Your task to perform on an android device: Go to calendar. Show me events next week Image 0: 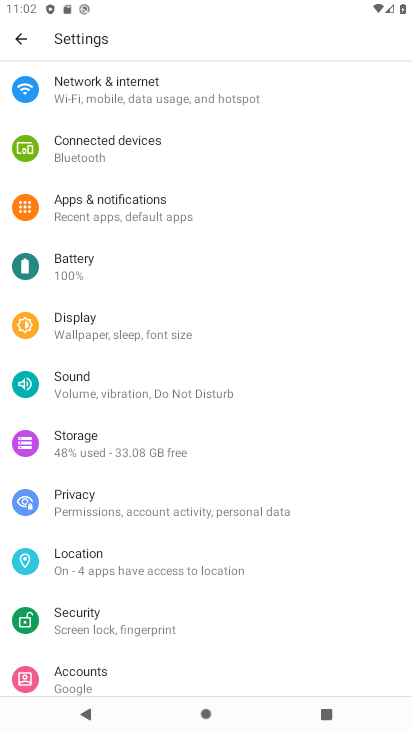
Step 0: press home button
Your task to perform on an android device: Go to calendar. Show me events next week Image 1: 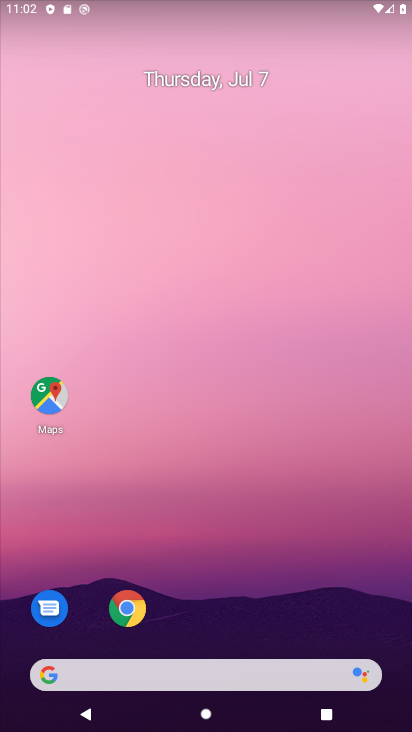
Step 1: drag from (277, 594) to (212, 26)
Your task to perform on an android device: Go to calendar. Show me events next week Image 2: 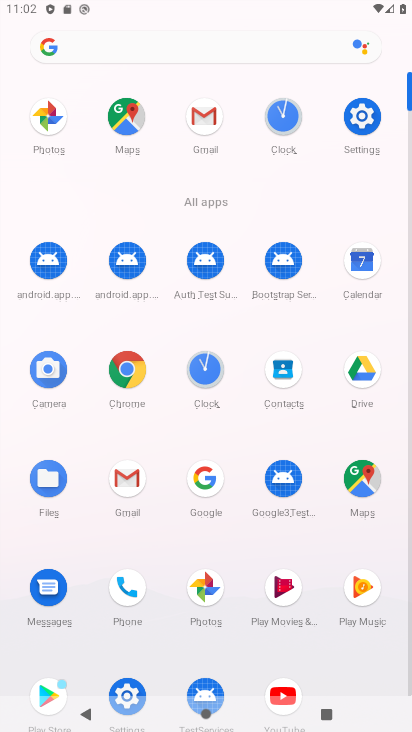
Step 2: click (352, 283)
Your task to perform on an android device: Go to calendar. Show me events next week Image 3: 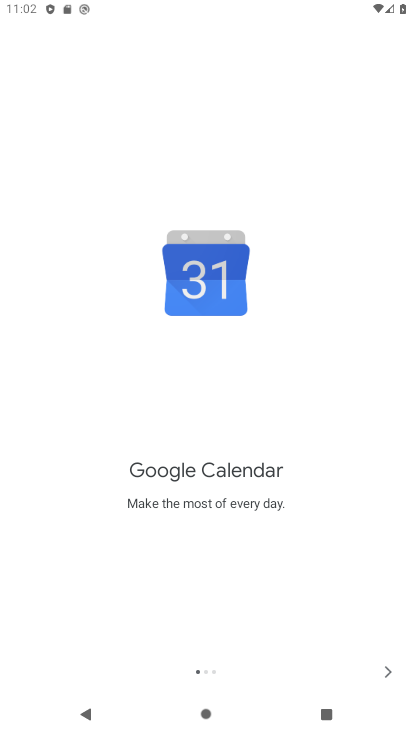
Step 3: click (401, 675)
Your task to perform on an android device: Go to calendar. Show me events next week Image 4: 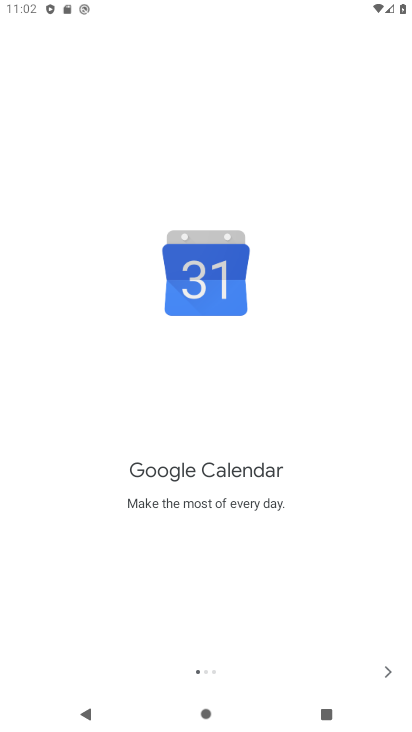
Step 4: click (401, 675)
Your task to perform on an android device: Go to calendar. Show me events next week Image 5: 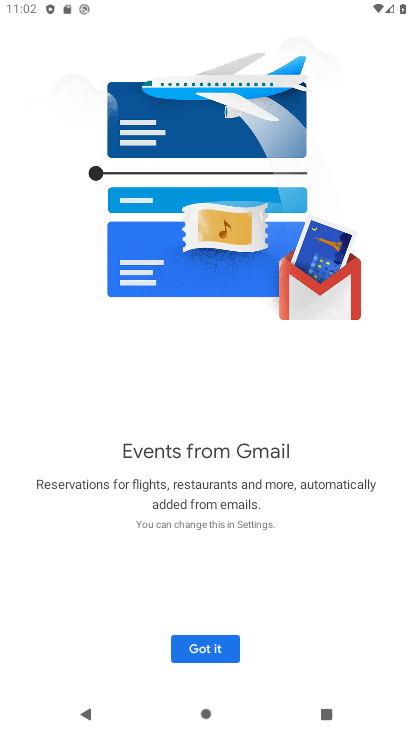
Step 5: click (401, 675)
Your task to perform on an android device: Go to calendar. Show me events next week Image 6: 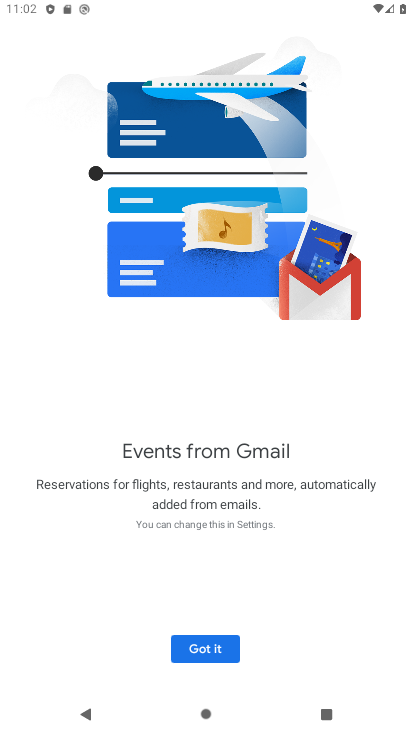
Step 6: click (183, 648)
Your task to perform on an android device: Go to calendar. Show me events next week Image 7: 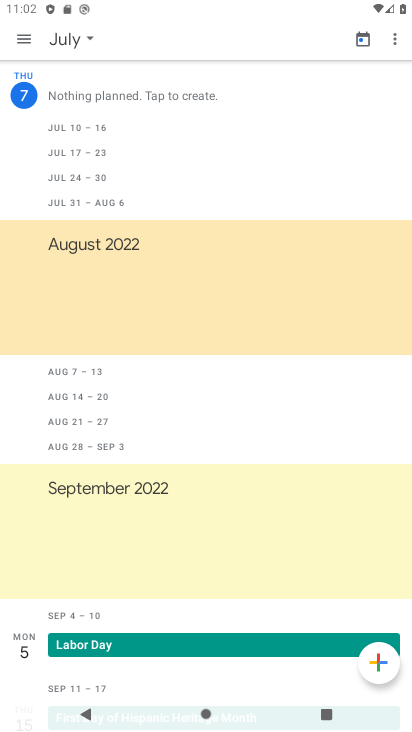
Step 7: click (15, 39)
Your task to perform on an android device: Go to calendar. Show me events next week Image 8: 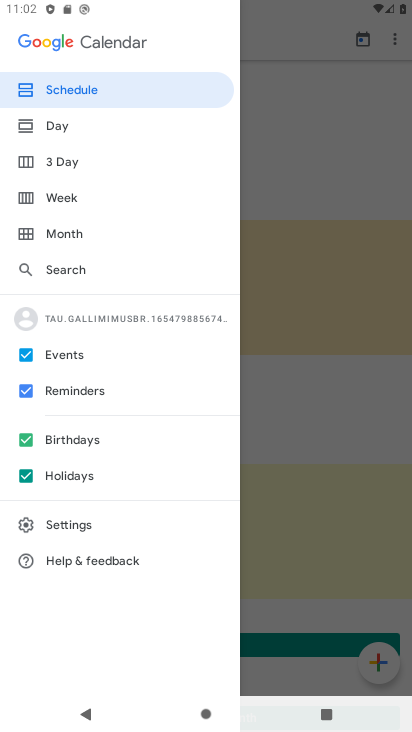
Step 8: click (67, 192)
Your task to perform on an android device: Go to calendar. Show me events next week Image 9: 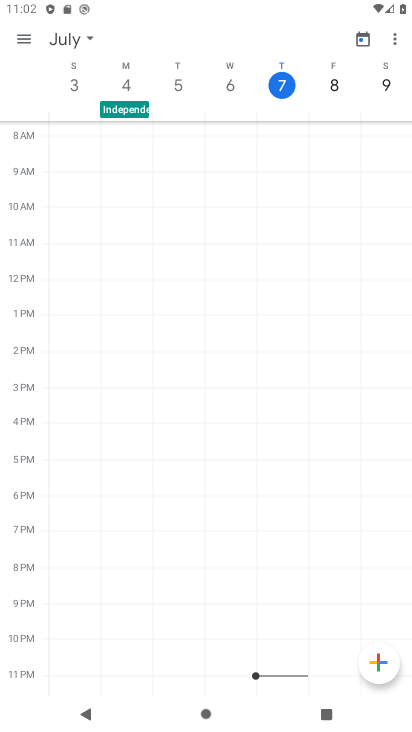
Step 9: task complete